Your task to perform on an android device: move an email to a new category in the gmail app Image 0: 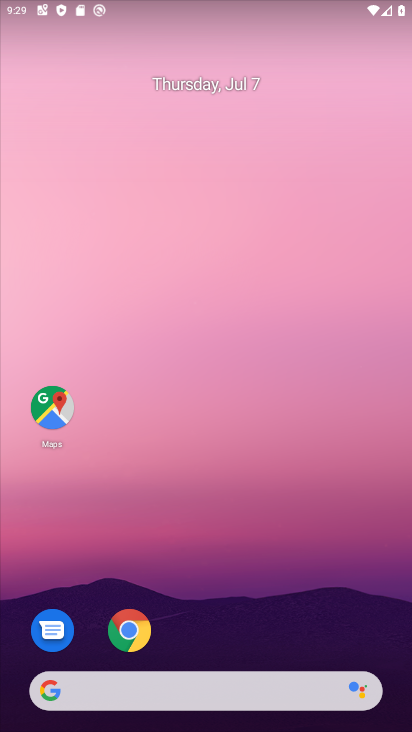
Step 0: drag from (187, 664) to (229, 135)
Your task to perform on an android device: move an email to a new category in the gmail app Image 1: 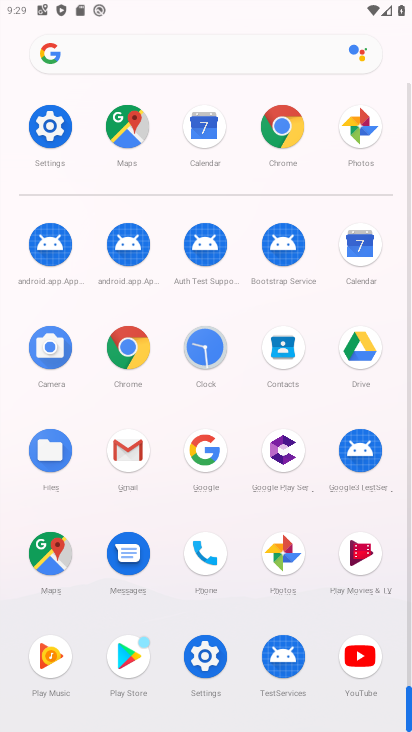
Step 1: click (125, 445)
Your task to perform on an android device: move an email to a new category in the gmail app Image 2: 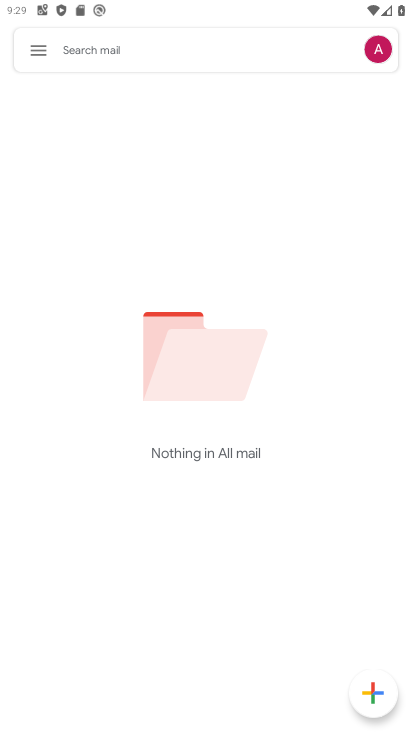
Step 2: click (25, 49)
Your task to perform on an android device: move an email to a new category in the gmail app Image 3: 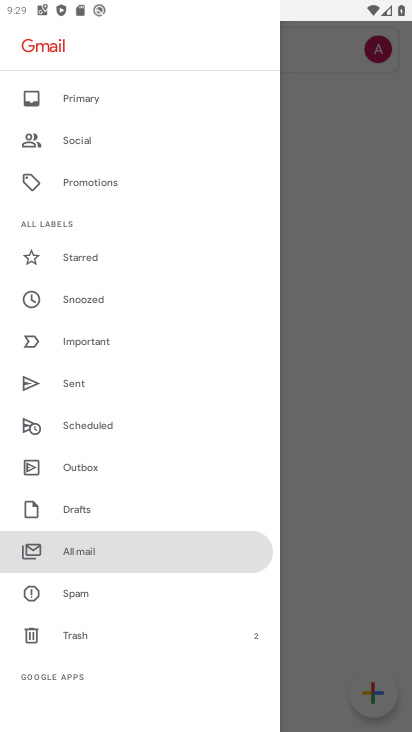
Step 3: click (89, 546)
Your task to perform on an android device: move an email to a new category in the gmail app Image 4: 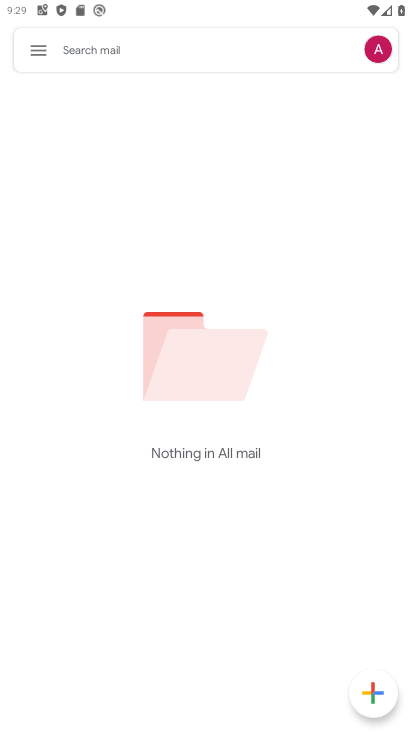
Step 4: click (320, 399)
Your task to perform on an android device: move an email to a new category in the gmail app Image 5: 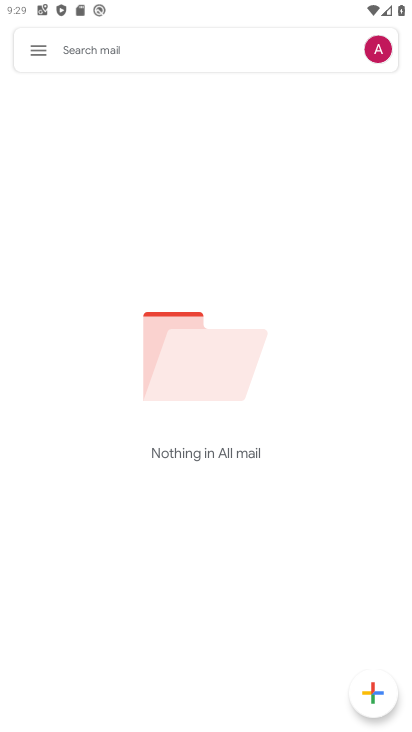
Step 5: task complete